Your task to perform on an android device: Search for "jbl charge 4" on newegg.com, select the first entry, add it to the cart, then select checkout. Image 0: 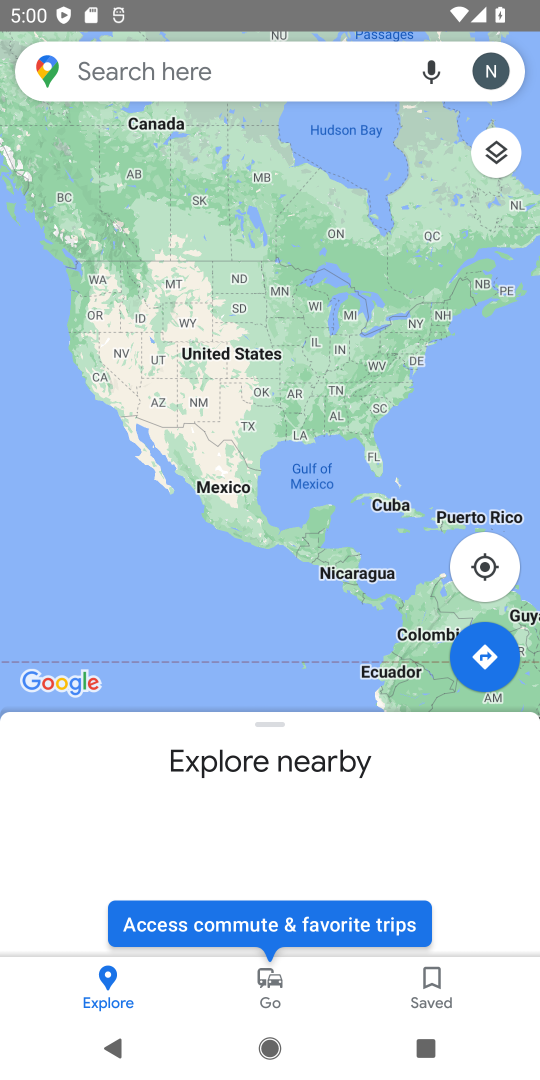
Step 0: click (384, 850)
Your task to perform on an android device: Search for "jbl charge 4" on newegg.com, select the first entry, add it to the cart, then select checkout. Image 1: 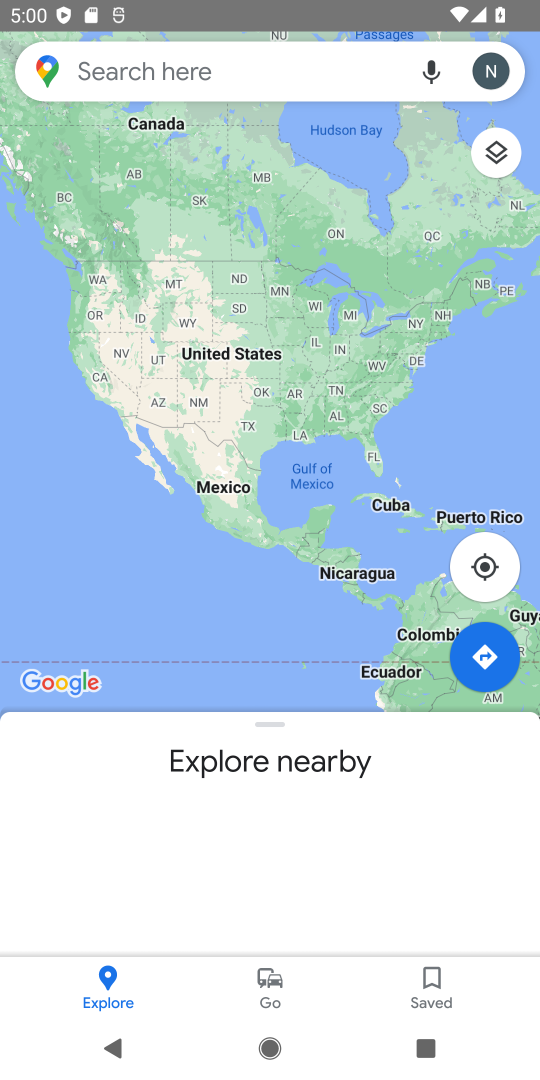
Step 1: press home button
Your task to perform on an android device: Search for "jbl charge 4" on newegg.com, select the first entry, add it to the cart, then select checkout. Image 2: 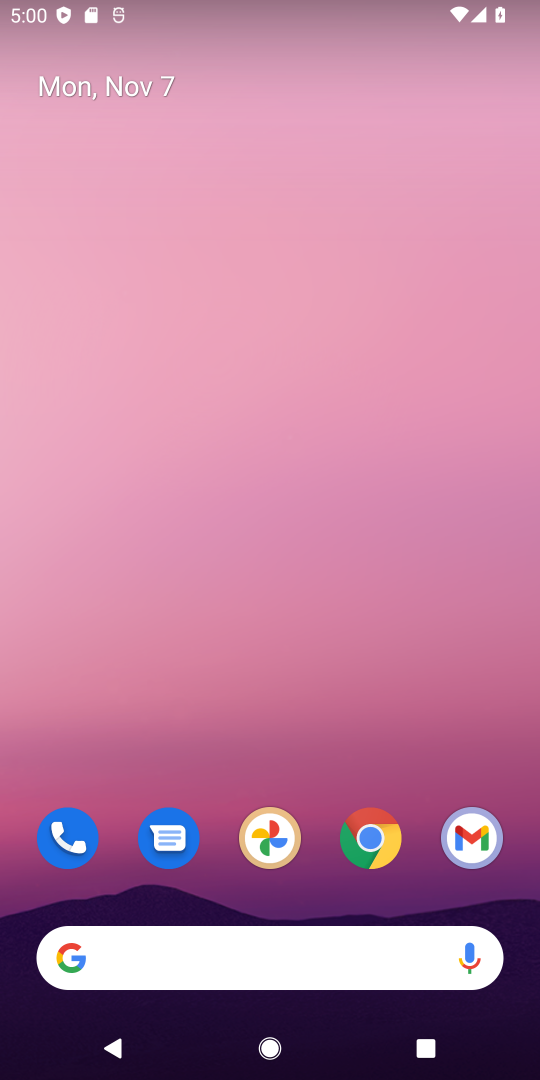
Step 2: press home button
Your task to perform on an android device: Search for "jbl charge 4" on newegg.com, select the first entry, add it to the cart, then select checkout. Image 3: 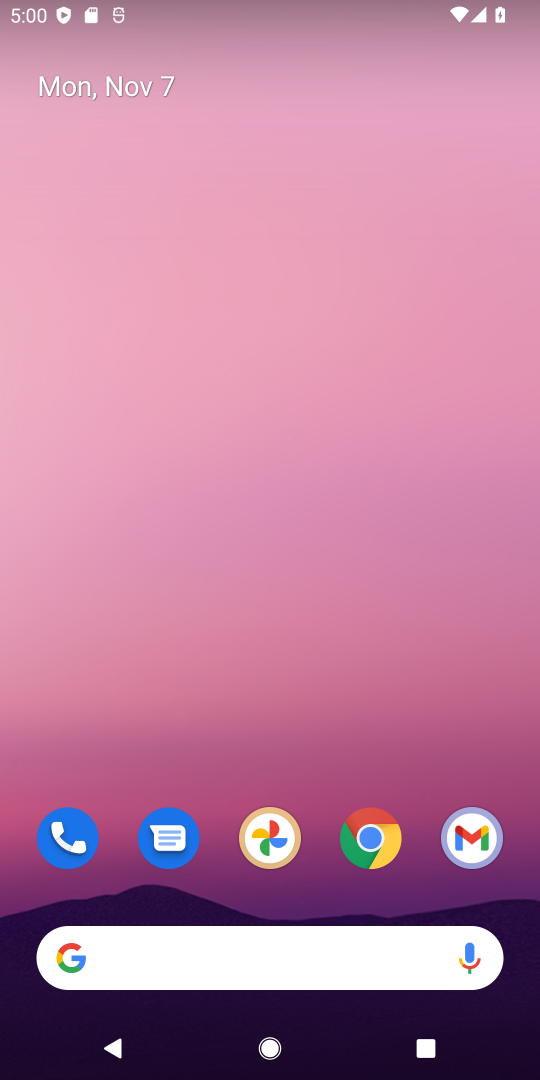
Step 3: click (369, 843)
Your task to perform on an android device: Search for "jbl charge 4" on newegg.com, select the first entry, add it to the cart, then select checkout. Image 4: 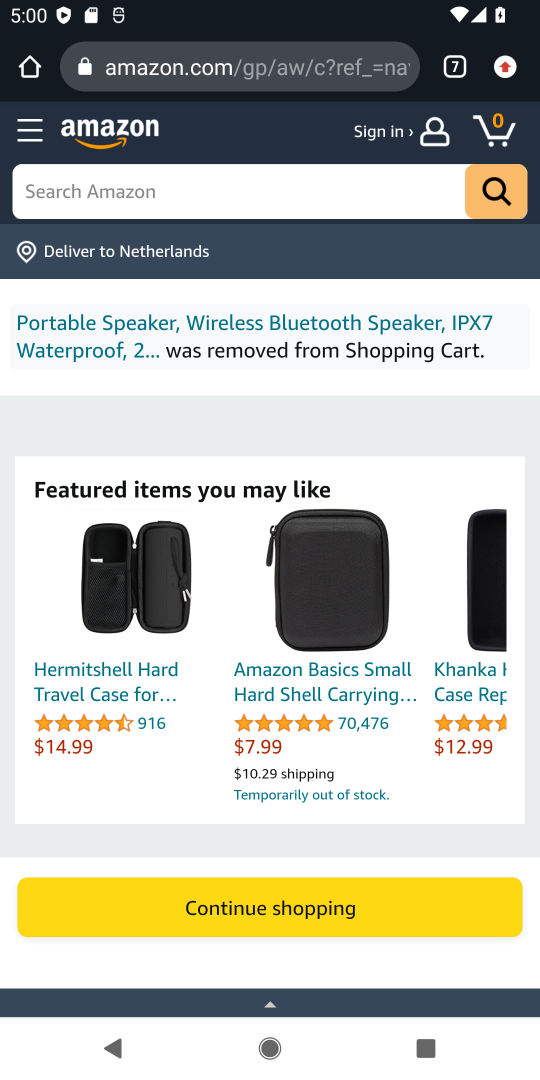
Step 4: click (459, 58)
Your task to perform on an android device: Search for "jbl charge 4" on newegg.com, select the first entry, add it to the cart, then select checkout. Image 5: 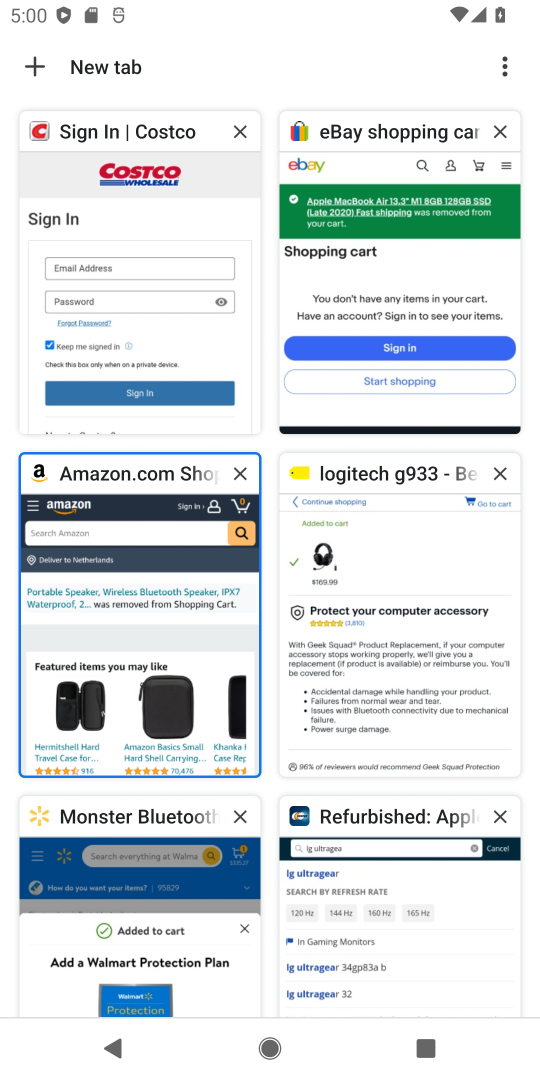
Step 5: click (335, 895)
Your task to perform on an android device: Search for "jbl charge 4" on newegg.com, select the first entry, add it to the cart, then select checkout. Image 6: 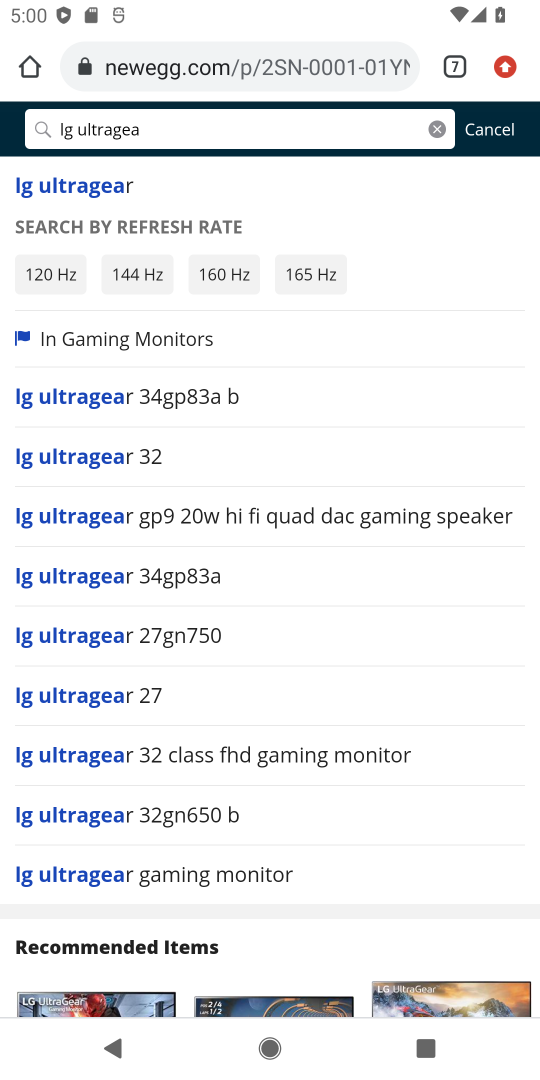
Step 6: click (441, 127)
Your task to perform on an android device: Search for "jbl charge 4" on newegg.com, select the first entry, add it to the cart, then select checkout. Image 7: 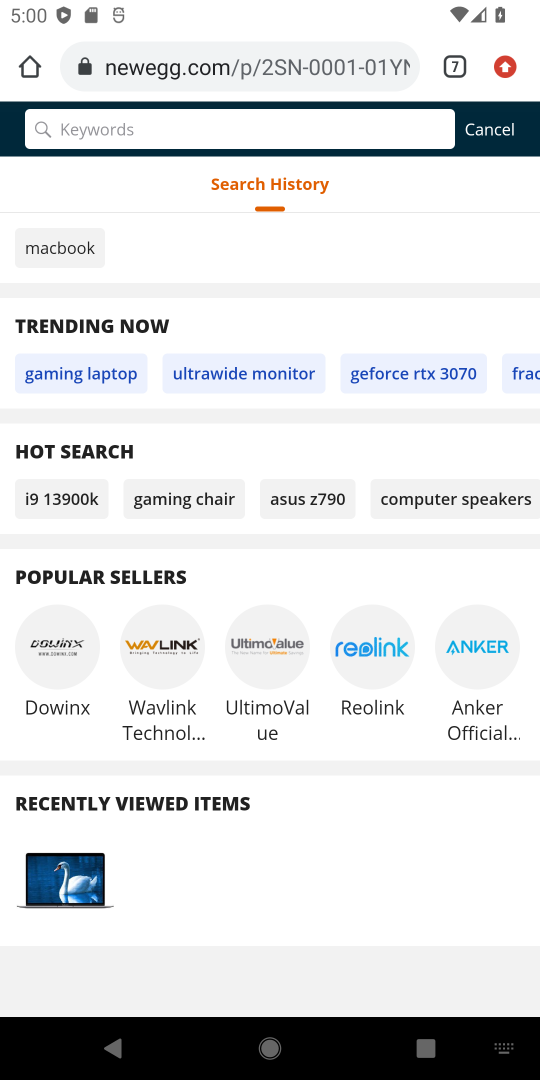
Step 7: type "jbl charge 4"
Your task to perform on an android device: Search for "jbl charge 4" on newegg.com, select the first entry, add it to the cart, then select checkout. Image 8: 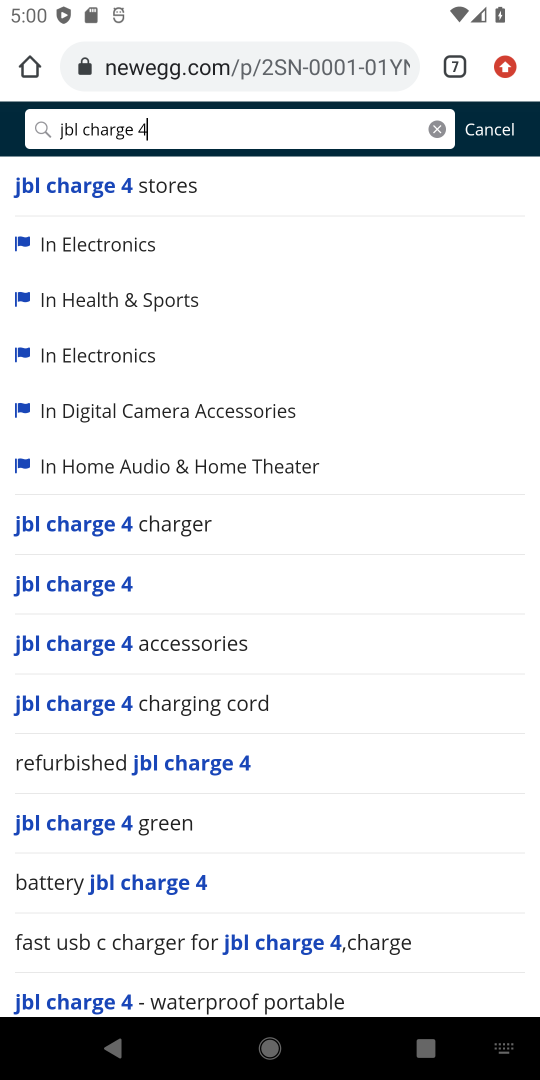
Step 8: click (102, 186)
Your task to perform on an android device: Search for "jbl charge 4" on newegg.com, select the first entry, add it to the cart, then select checkout. Image 9: 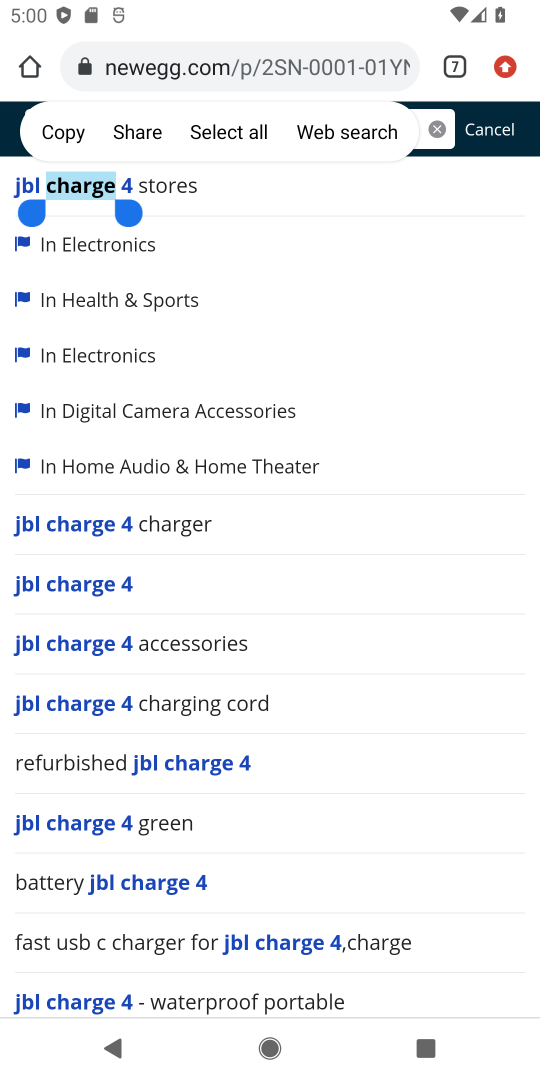
Step 9: click (163, 188)
Your task to perform on an android device: Search for "jbl charge 4" on newegg.com, select the first entry, add it to the cart, then select checkout. Image 10: 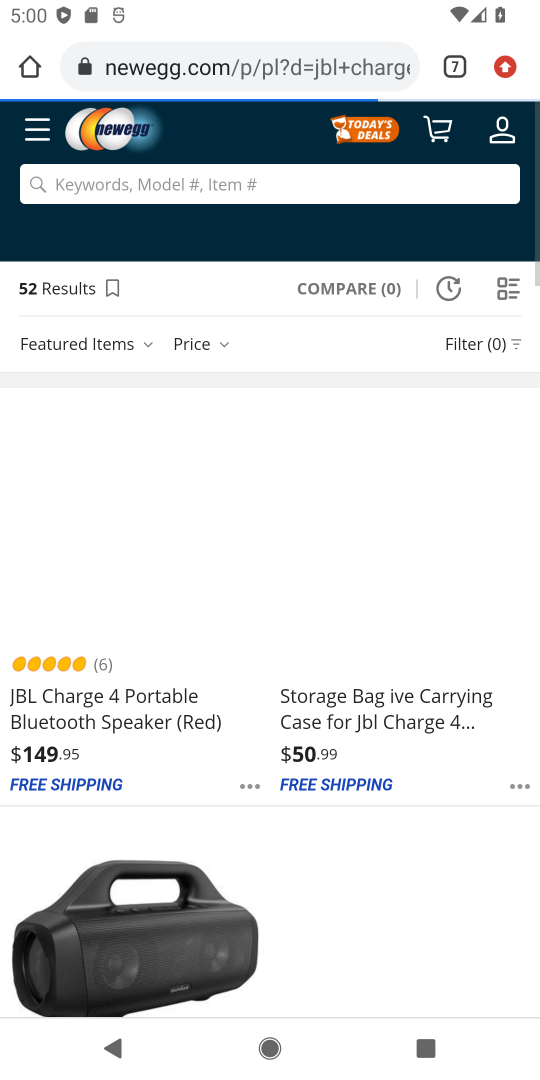
Step 10: click (82, 518)
Your task to perform on an android device: Search for "jbl charge 4" on newegg.com, select the first entry, add it to the cart, then select checkout. Image 11: 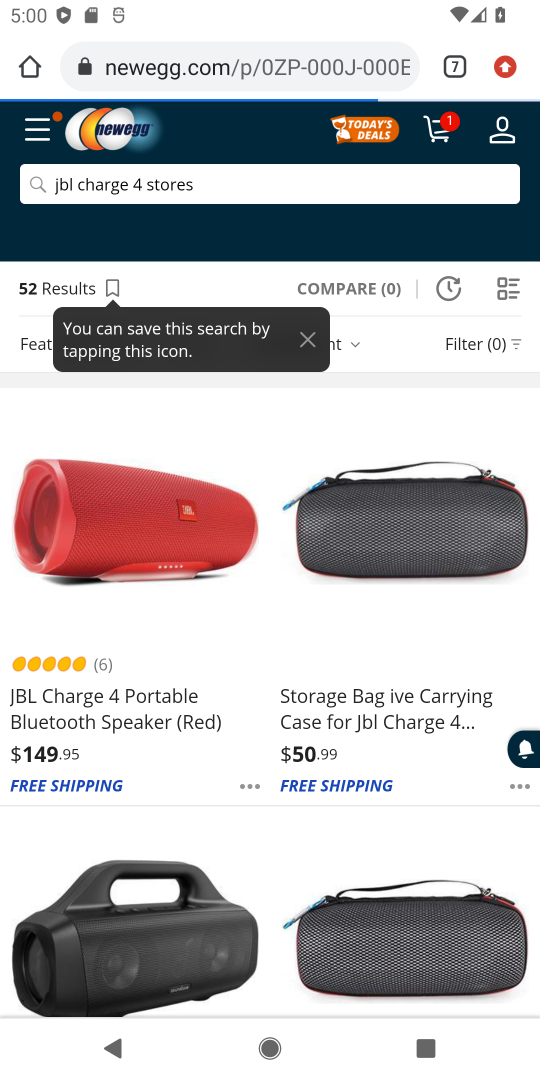
Step 11: click (131, 698)
Your task to perform on an android device: Search for "jbl charge 4" on newegg.com, select the first entry, add it to the cart, then select checkout. Image 12: 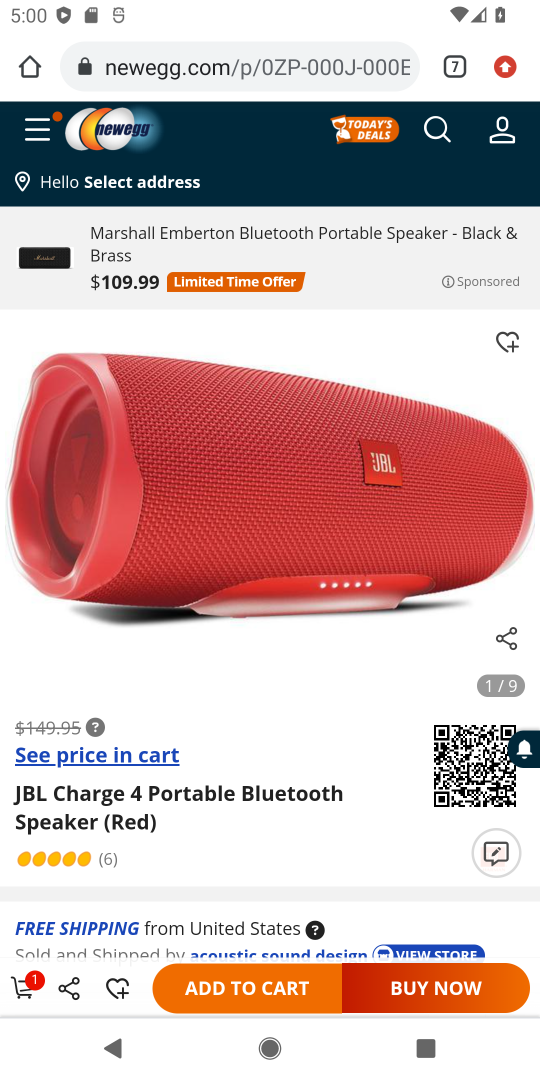
Step 12: click (265, 981)
Your task to perform on an android device: Search for "jbl charge 4" on newegg.com, select the first entry, add it to the cart, then select checkout. Image 13: 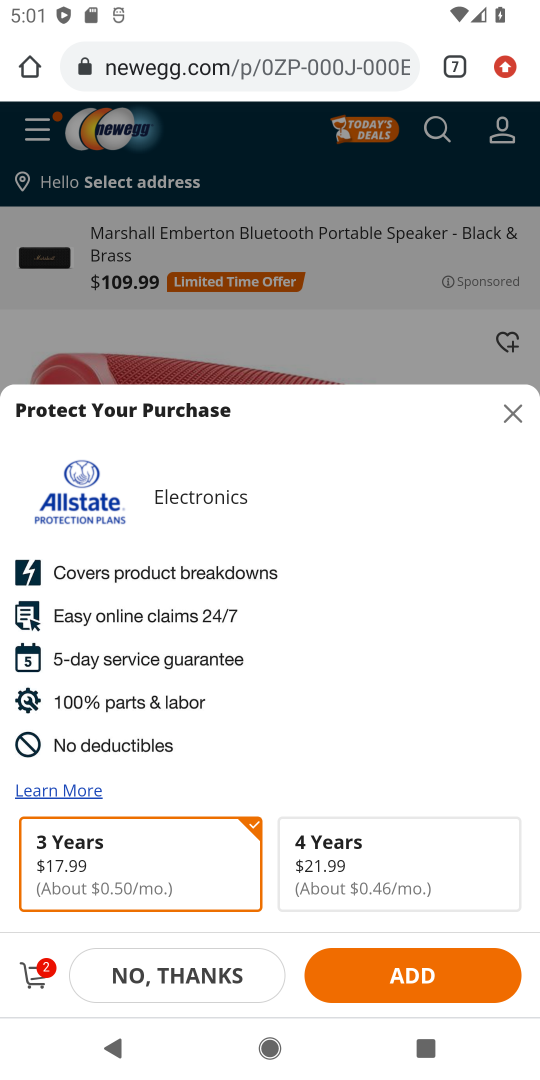
Step 13: click (186, 984)
Your task to perform on an android device: Search for "jbl charge 4" on newegg.com, select the first entry, add it to the cart, then select checkout. Image 14: 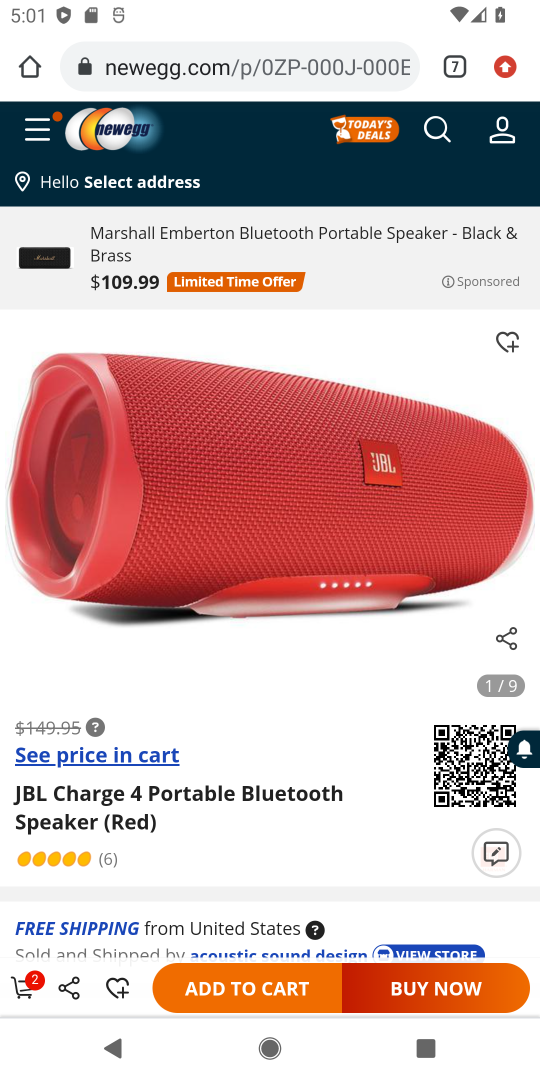
Step 14: click (17, 980)
Your task to perform on an android device: Search for "jbl charge 4" on newegg.com, select the first entry, add it to the cart, then select checkout. Image 15: 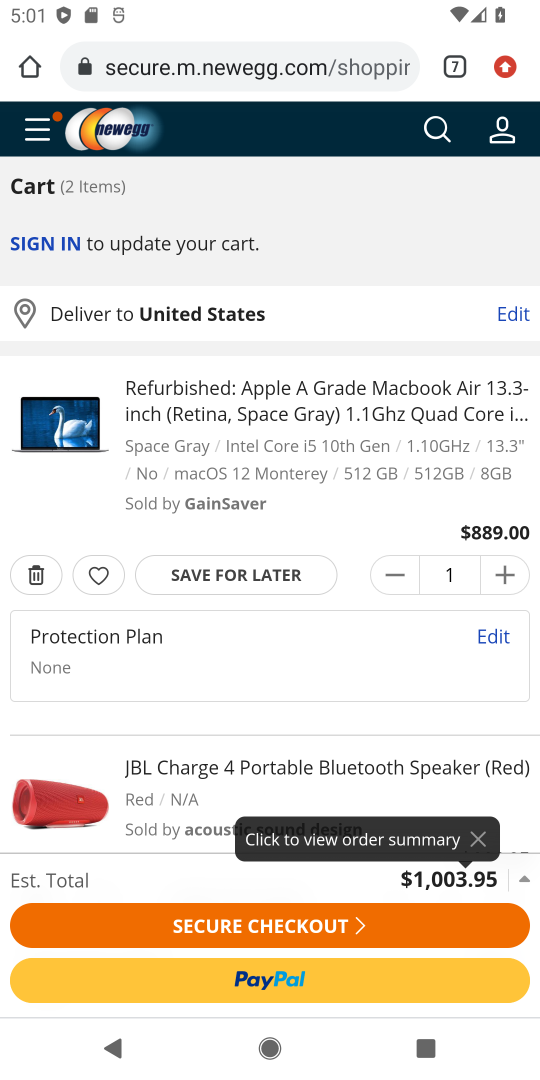
Step 15: click (303, 926)
Your task to perform on an android device: Search for "jbl charge 4" on newegg.com, select the first entry, add it to the cart, then select checkout. Image 16: 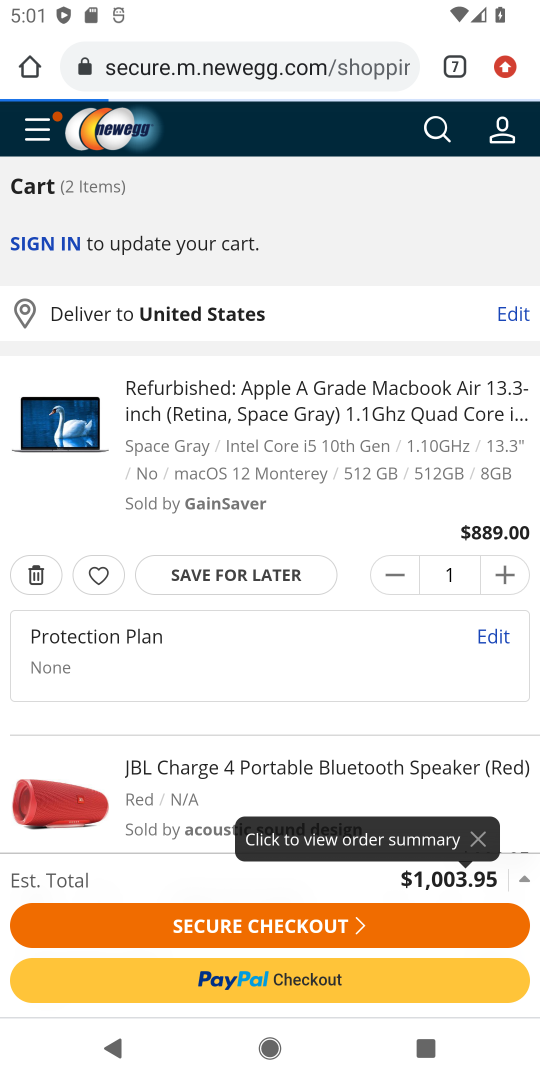
Step 16: task complete